Your task to perform on an android device: Open Google Chrome and click the shortcut for Amazon.com Image 0: 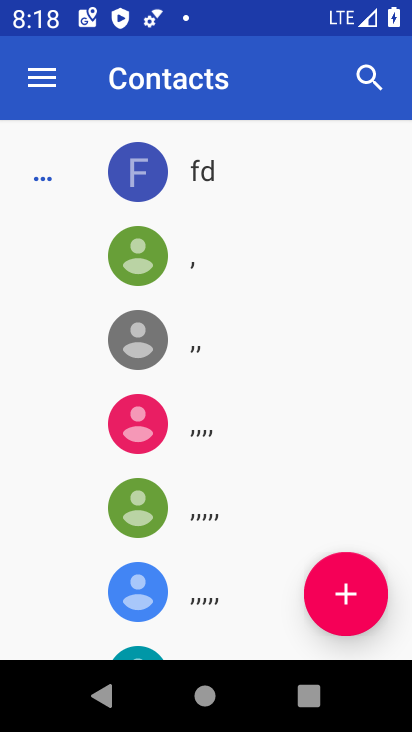
Step 0: press home button
Your task to perform on an android device: Open Google Chrome and click the shortcut for Amazon.com Image 1: 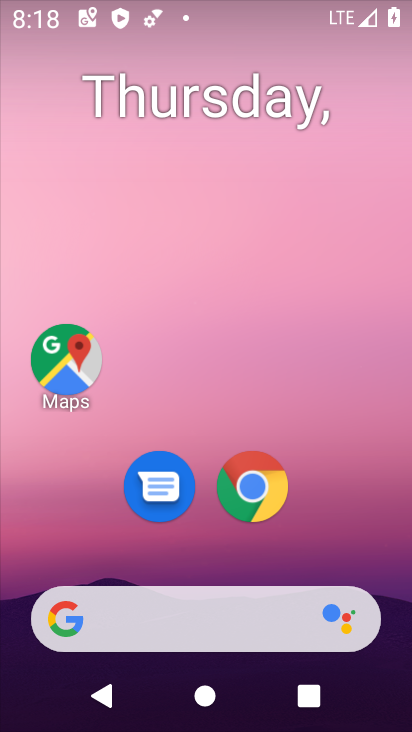
Step 1: drag from (146, 629) to (182, 183)
Your task to perform on an android device: Open Google Chrome and click the shortcut for Amazon.com Image 2: 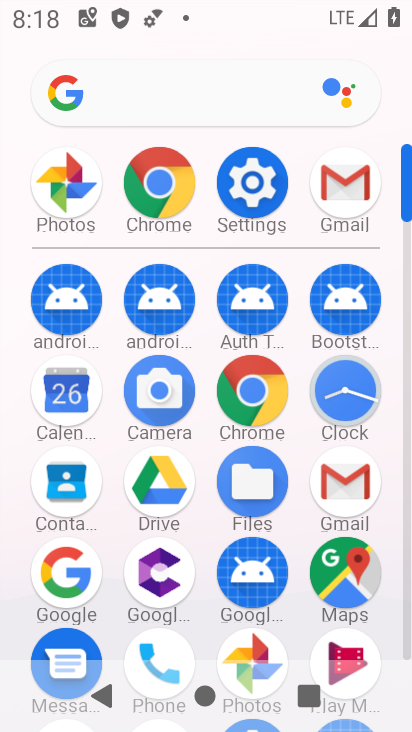
Step 2: drag from (227, 431) to (257, 167)
Your task to perform on an android device: Open Google Chrome and click the shortcut for Amazon.com Image 3: 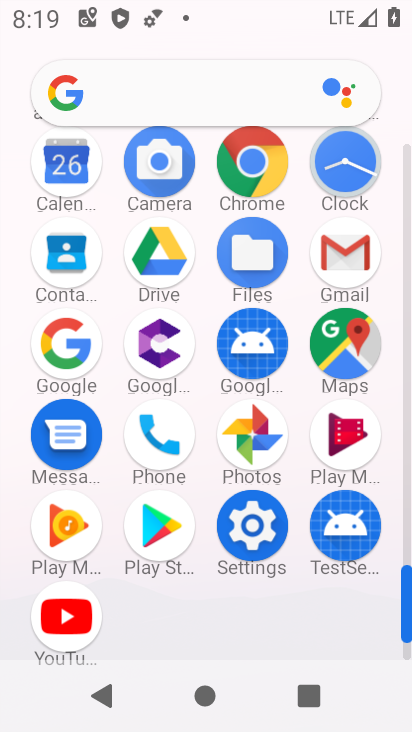
Step 3: click (259, 178)
Your task to perform on an android device: Open Google Chrome and click the shortcut for Amazon.com Image 4: 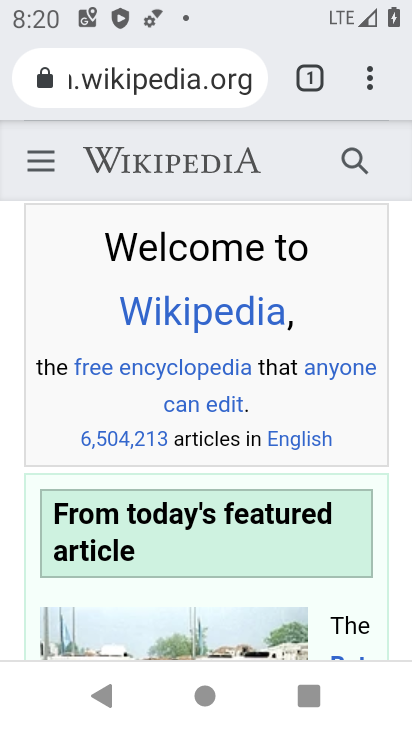
Step 4: click (244, 79)
Your task to perform on an android device: Open Google Chrome and click the shortcut for Amazon.com Image 5: 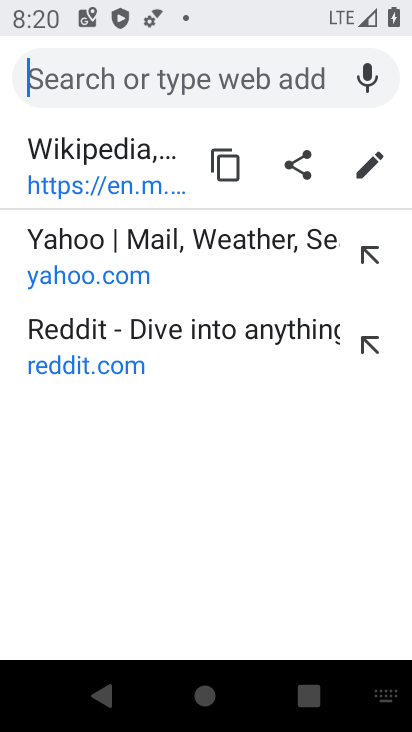
Step 5: type "amazon"
Your task to perform on an android device: Open Google Chrome and click the shortcut for Amazon.com Image 6: 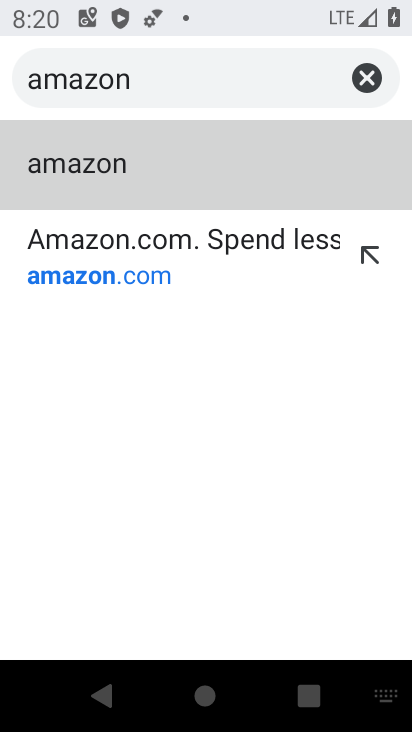
Step 6: click (276, 242)
Your task to perform on an android device: Open Google Chrome and click the shortcut for Amazon.com Image 7: 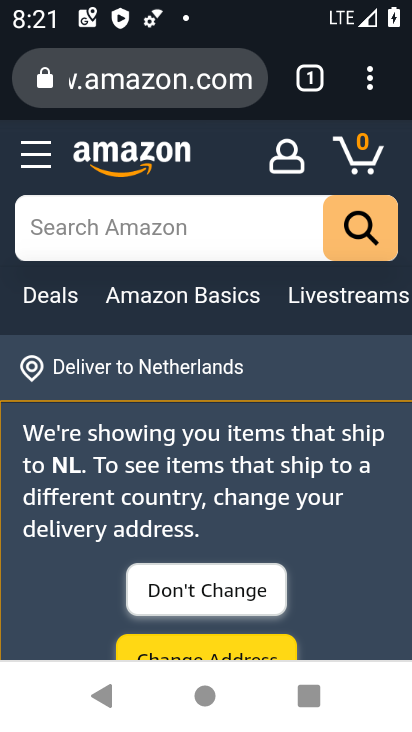
Step 7: task complete